Your task to perform on an android device: turn on bluetooth scan Image 0: 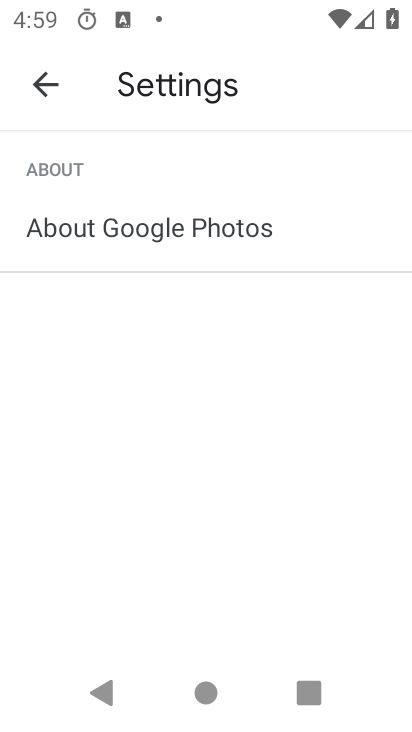
Step 0: press home button
Your task to perform on an android device: turn on bluetooth scan Image 1: 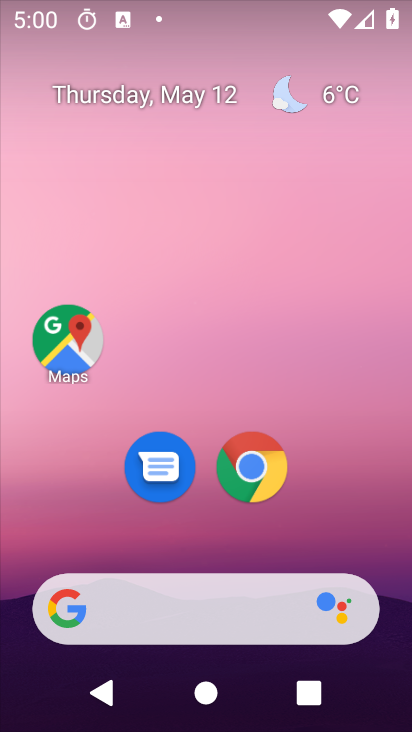
Step 1: drag from (262, 654) to (365, 3)
Your task to perform on an android device: turn on bluetooth scan Image 2: 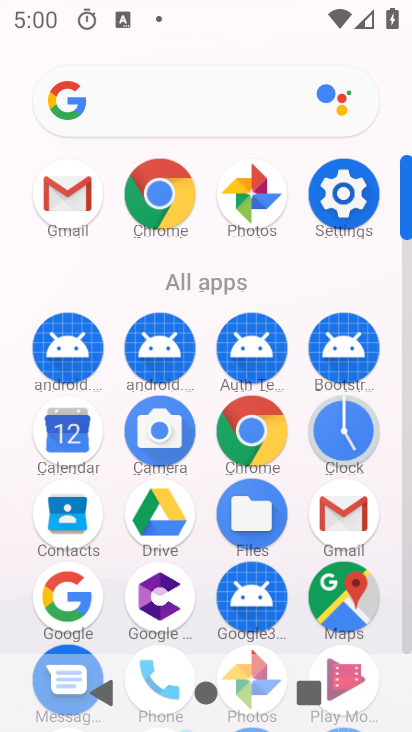
Step 2: click (328, 212)
Your task to perform on an android device: turn on bluetooth scan Image 3: 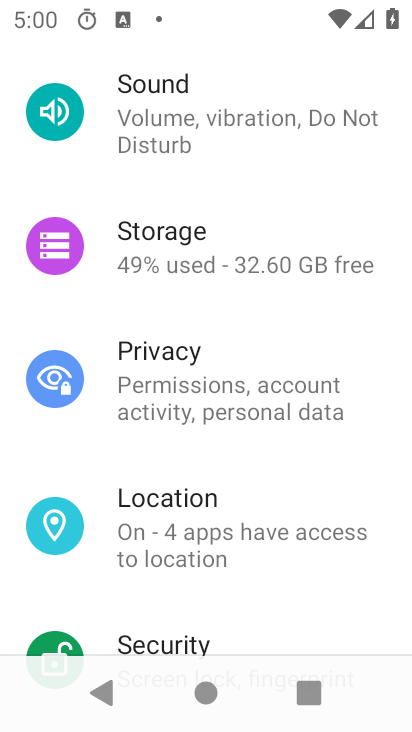
Step 3: drag from (268, 207) to (304, 238)
Your task to perform on an android device: turn on bluetooth scan Image 4: 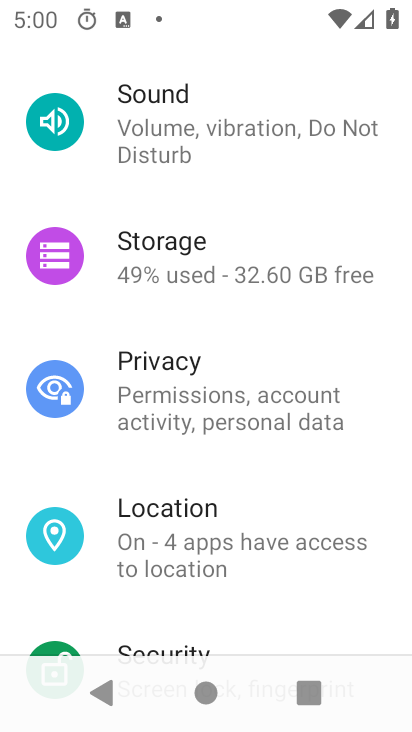
Step 4: click (259, 546)
Your task to perform on an android device: turn on bluetooth scan Image 5: 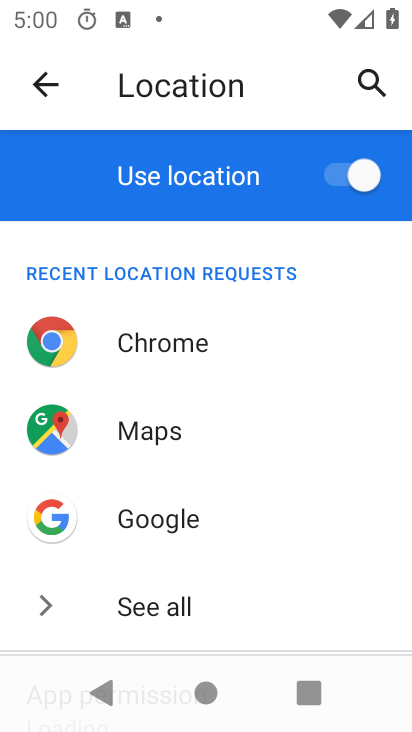
Step 5: drag from (291, 591) to (286, 152)
Your task to perform on an android device: turn on bluetooth scan Image 6: 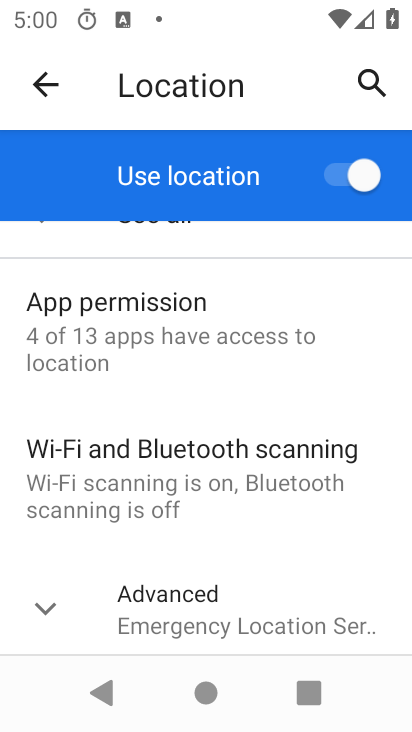
Step 6: click (261, 490)
Your task to perform on an android device: turn on bluetooth scan Image 7: 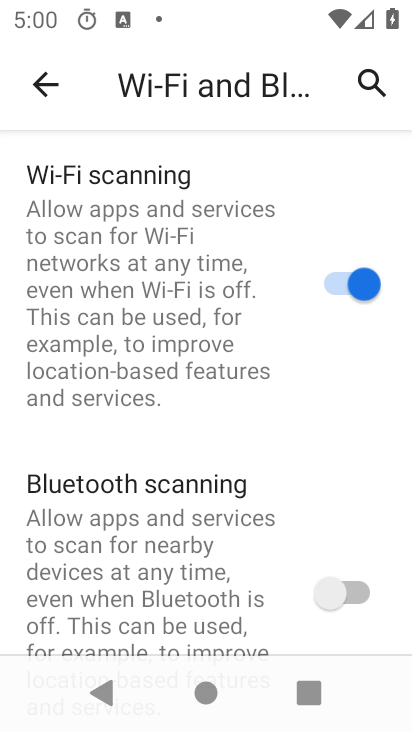
Step 7: click (347, 588)
Your task to perform on an android device: turn on bluetooth scan Image 8: 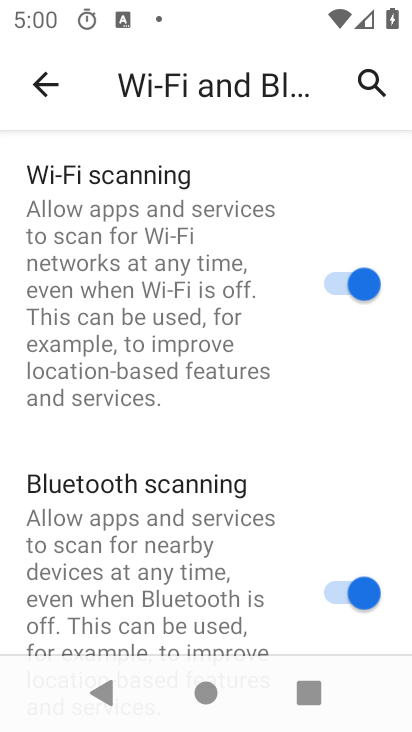
Step 8: task complete